Your task to perform on an android device: turn notification dots on Image 0: 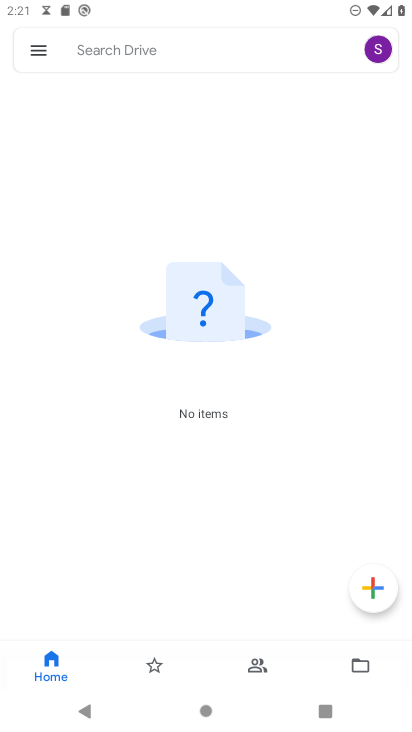
Step 0: press home button
Your task to perform on an android device: turn notification dots on Image 1: 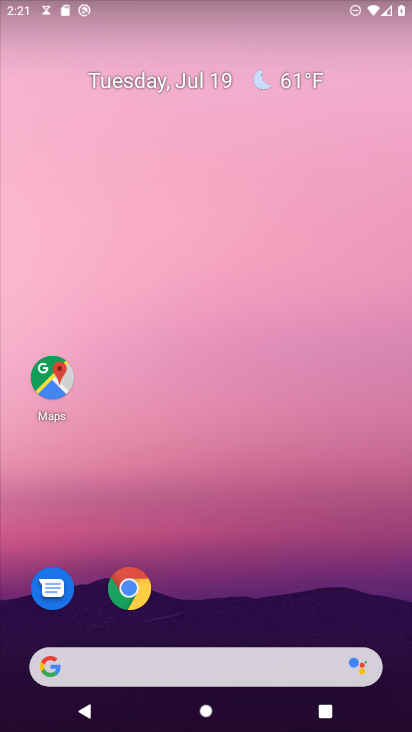
Step 1: drag from (272, 675) to (174, 196)
Your task to perform on an android device: turn notification dots on Image 2: 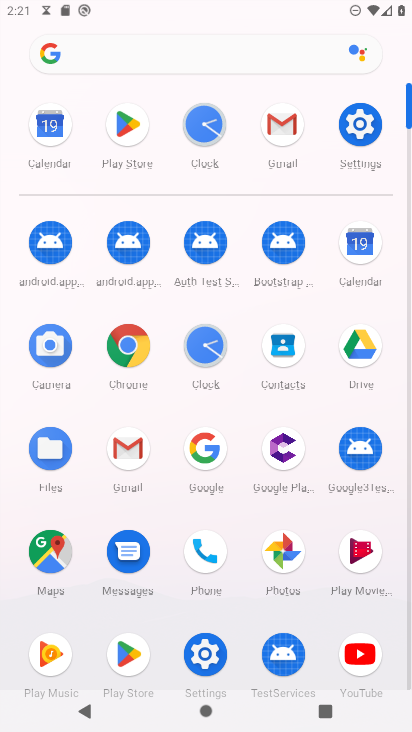
Step 2: click (212, 654)
Your task to perform on an android device: turn notification dots on Image 3: 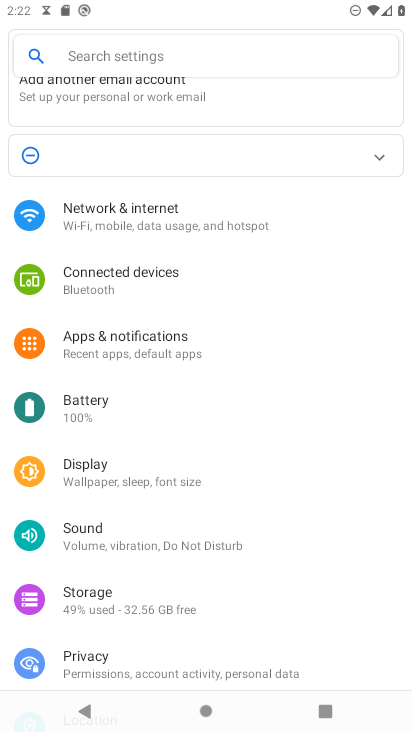
Step 3: click (101, 53)
Your task to perform on an android device: turn notification dots on Image 4: 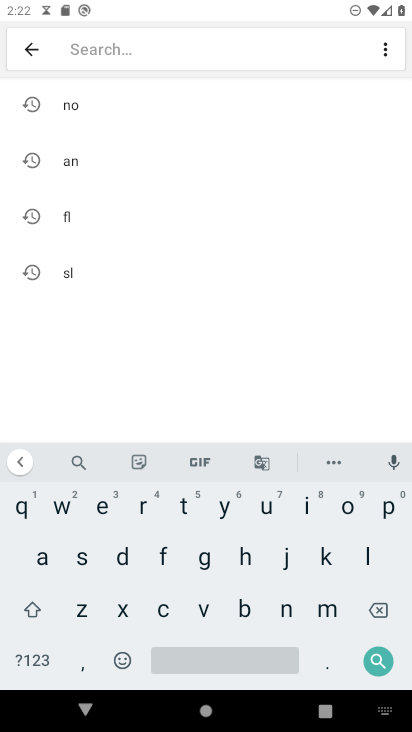
Step 4: click (110, 110)
Your task to perform on an android device: turn notification dots on Image 5: 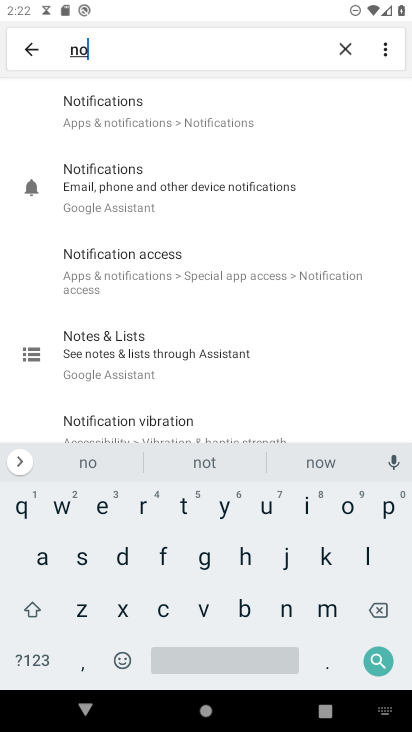
Step 5: click (110, 110)
Your task to perform on an android device: turn notification dots on Image 6: 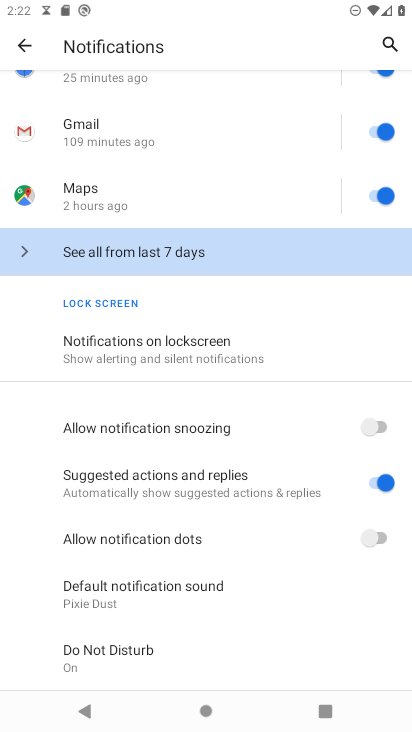
Step 6: click (338, 543)
Your task to perform on an android device: turn notification dots on Image 7: 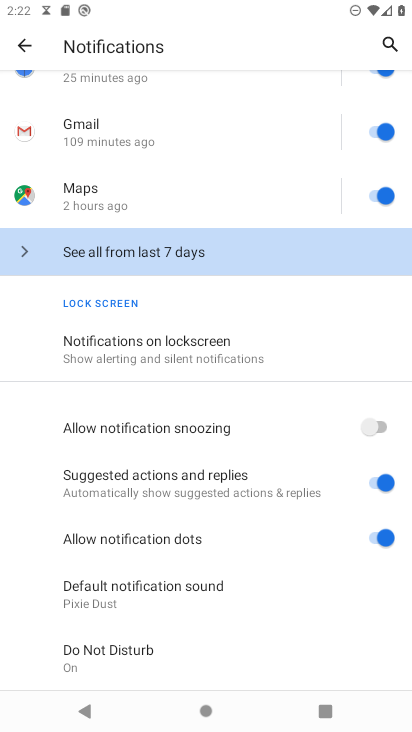
Step 7: task complete